Your task to perform on an android device: toggle airplane mode Image 0: 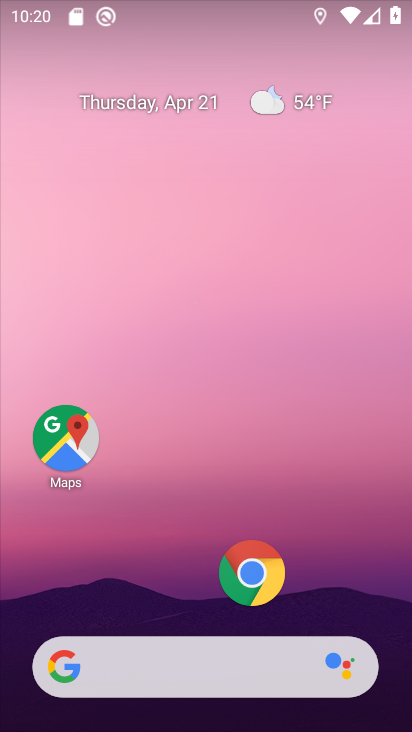
Step 0: drag from (192, 614) to (250, 41)
Your task to perform on an android device: toggle airplane mode Image 1: 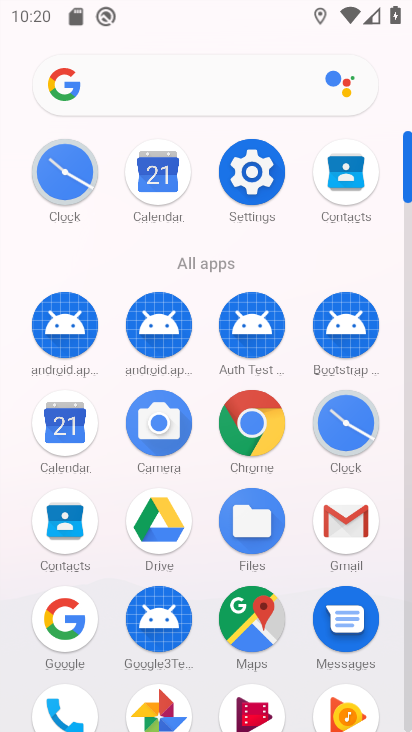
Step 1: click (233, 161)
Your task to perform on an android device: toggle airplane mode Image 2: 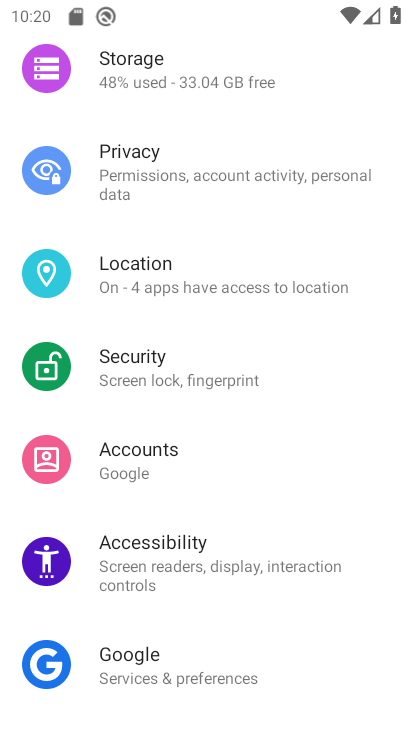
Step 2: drag from (230, 140) to (219, 525)
Your task to perform on an android device: toggle airplane mode Image 3: 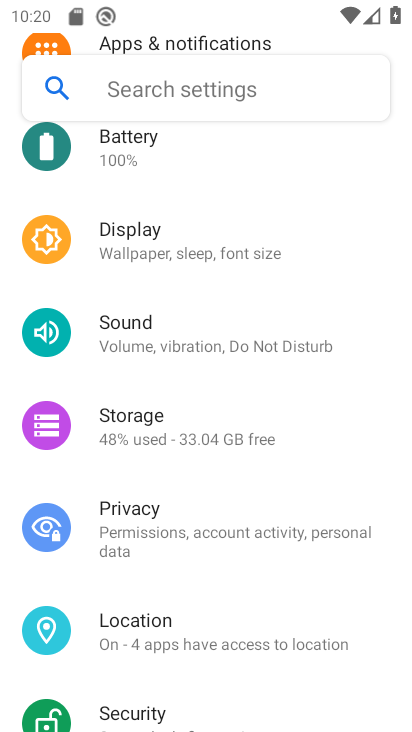
Step 3: drag from (241, 219) to (271, 606)
Your task to perform on an android device: toggle airplane mode Image 4: 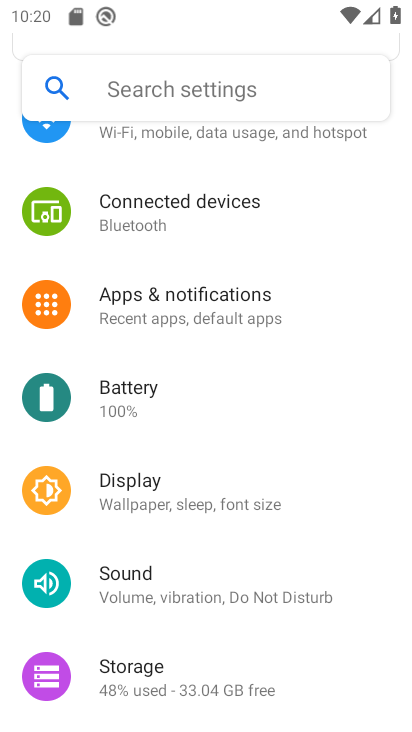
Step 4: drag from (228, 212) to (234, 560)
Your task to perform on an android device: toggle airplane mode Image 5: 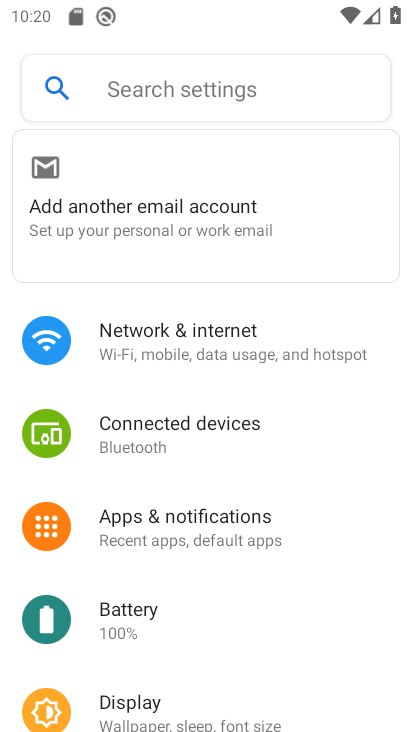
Step 5: click (222, 359)
Your task to perform on an android device: toggle airplane mode Image 6: 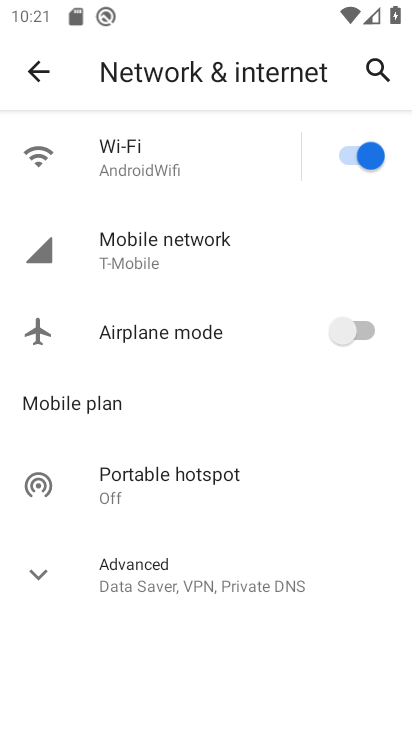
Step 6: click (359, 324)
Your task to perform on an android device: toggle airplane mode Image 7: 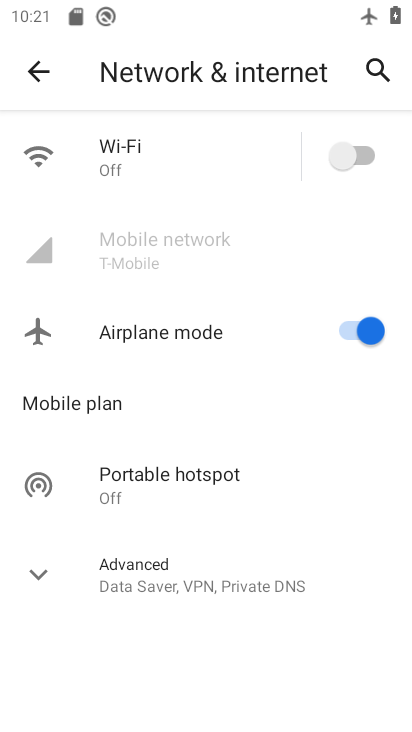
Step 7: task complete